Your task to perform on an android device: turn off improve location accuracy Image 0: 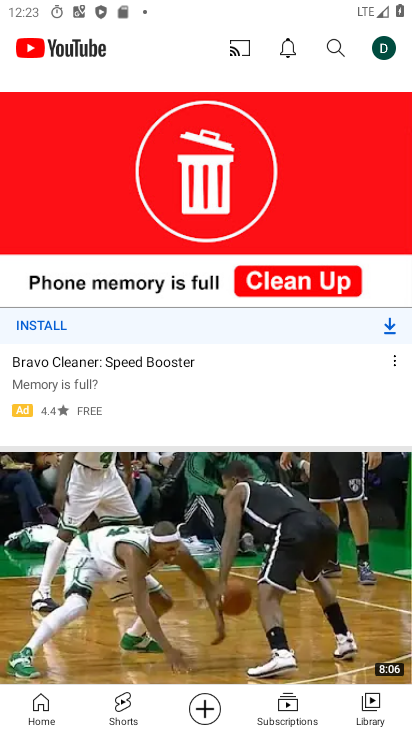
Step 0: press home button
Your task to perform on an android device: turn off improve location accuracy Image 1: 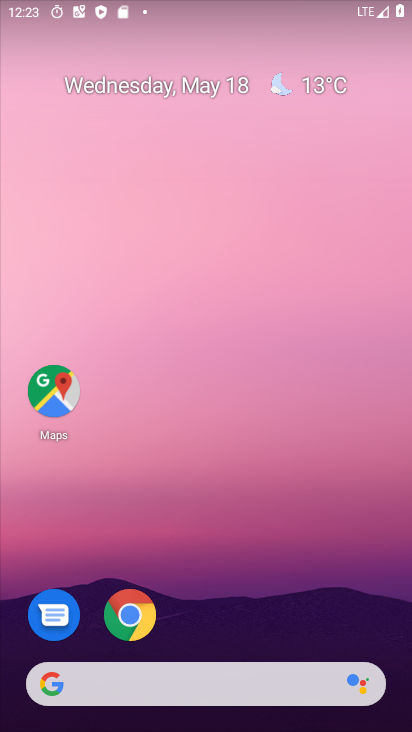
Step 1: drag from (125, 682) to (266, 214)
Your task to perform on an android device: turn off improve location accuracy Image 2: 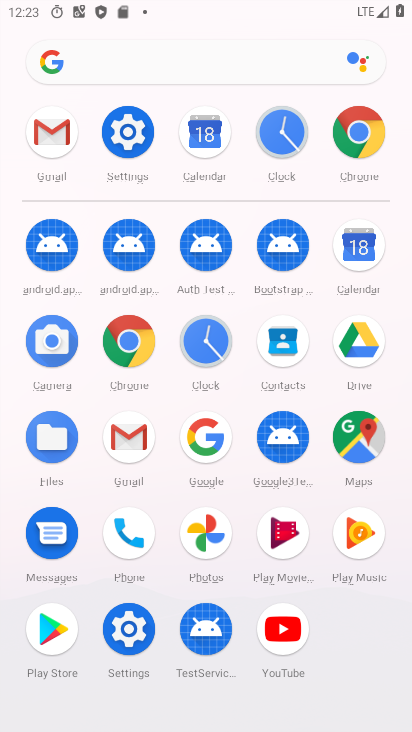
Step 2: click (120, 137)
Your task to perform on an android device: turn off improve location accuracy Image 3: 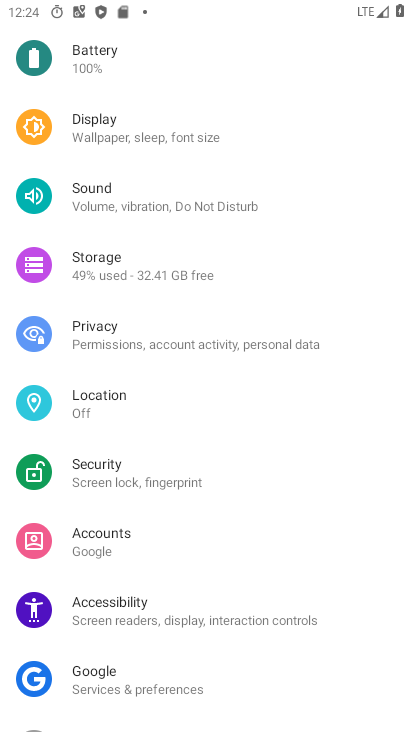
Step 3: drag from (293, 155) to (340, 324)
Your task to perform on an android device: turn off improve location accuracy Image 4: 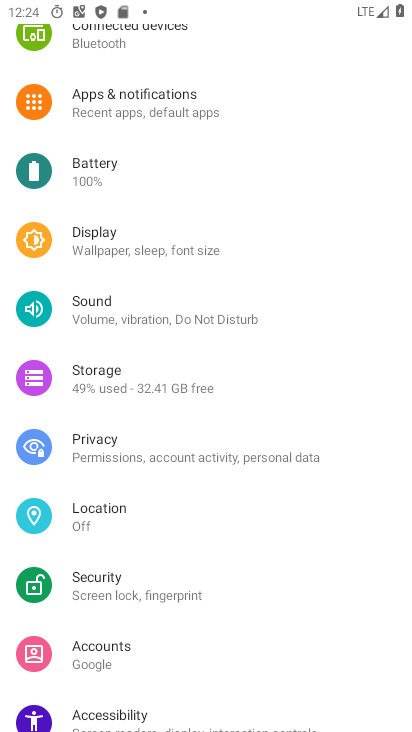
Step 4: click (90, 512)
Your task to perform on an android device: turn off improve location accuracy Image 5: 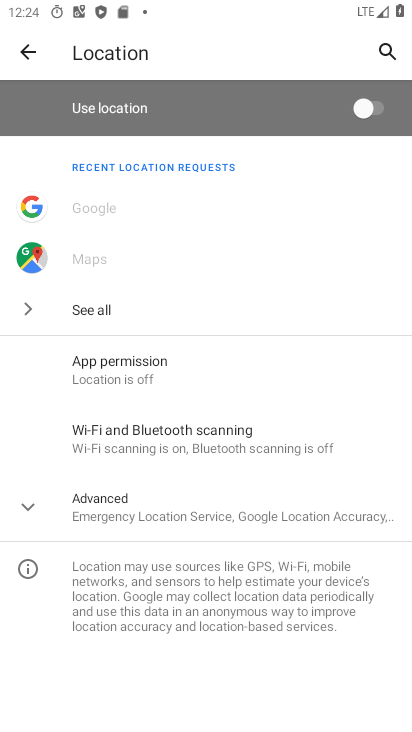
Step 5: click (139, 507)
Your task to perform on an android device: turn off improve location accuracy Image 6: 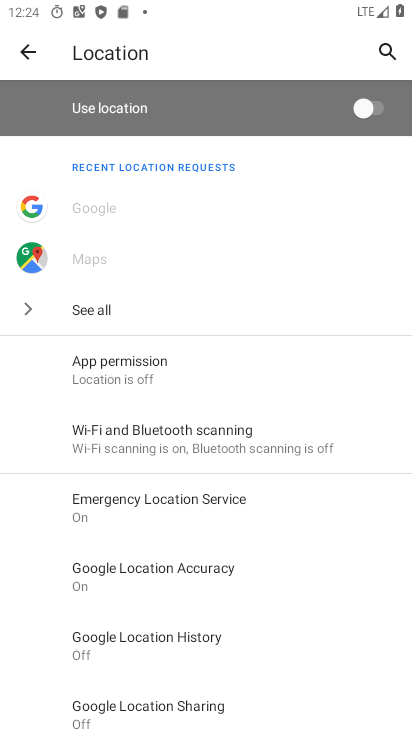
Step 6: click (182, 574)
Your task to perform on an android device: turn off improve location accuracy Image 7: 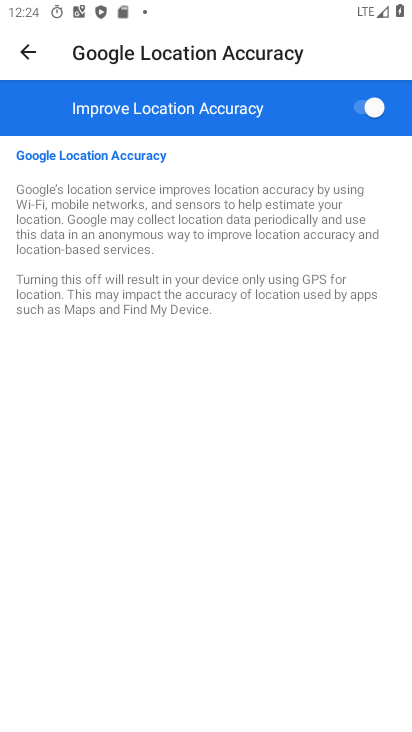
Step 7: click (362, 113)
Your task to perform on an android device: turn off improve location accuracy Image 8: 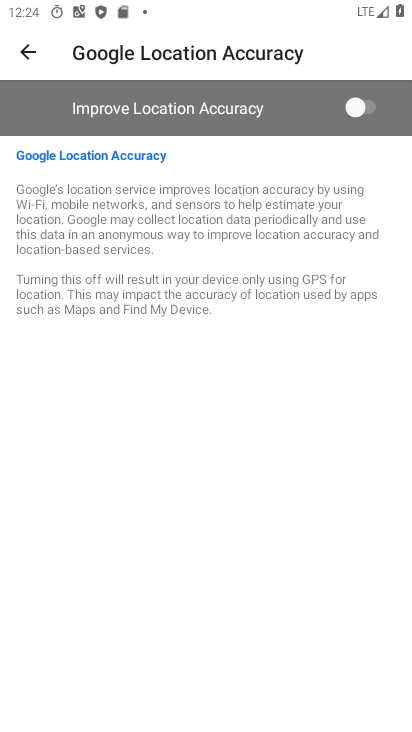
Step 8: task complete